Your task to perform on an android device: snooze an email in the gmail app Image 0: 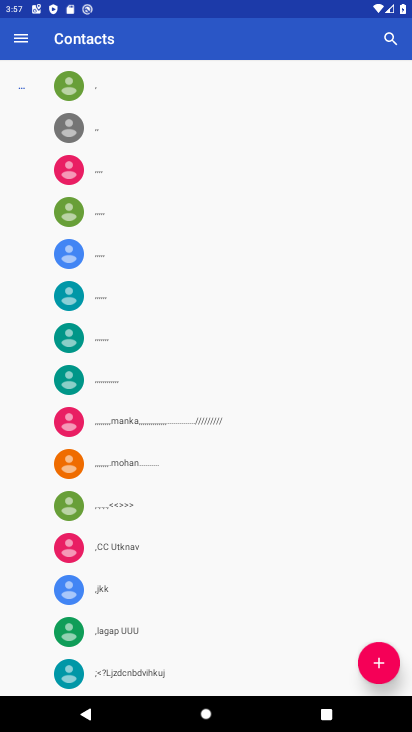
Step 0: press home button
Your task to perform on an android device: snooze an email in the gmail app Image 1: 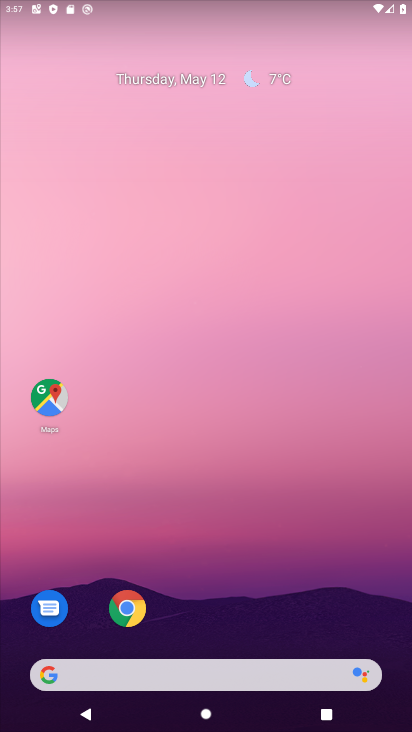
Step 1: drag from (180, 624) to (323, 21)
Your task to perform on an android device: snooze an email in the gmail app Image 2: 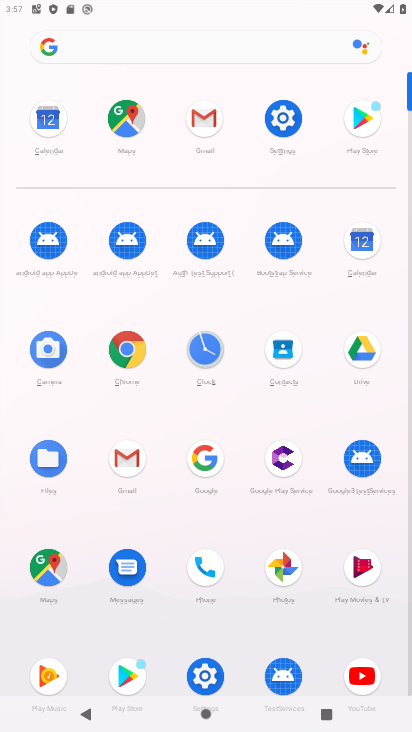
Step 2: click (137, 454)
Your task to perform on an android device: snooze an email in the gmail app Image 3: 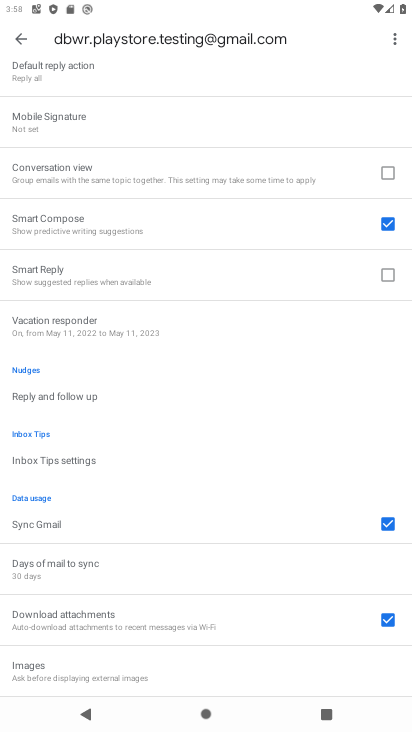
Step 3: click (25, 56)
Your task to perform on an android device: snooze an email in the gmail app Image 4: 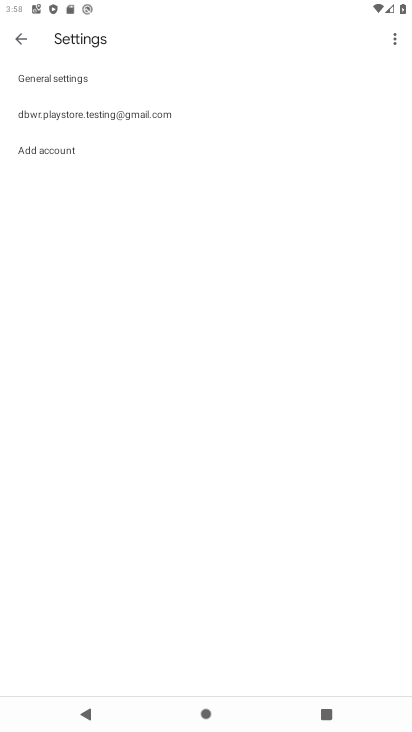
Step 4: click (25, 56)
Your task to perform on an android device: snooze an email in the gmail app Image 5: 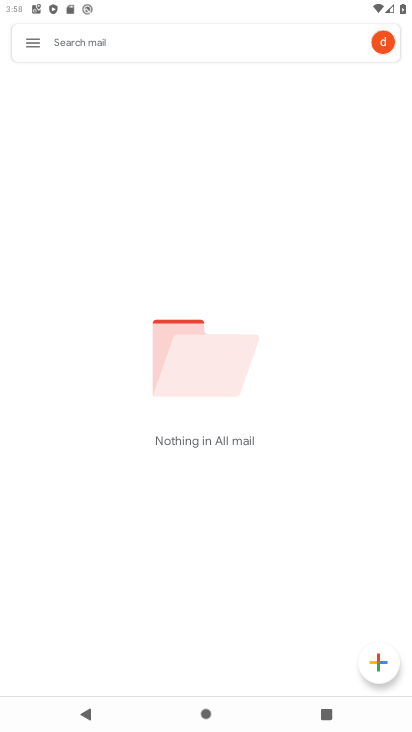
Step 5: task complete